Your task to perform on an android device: open chrome privacy settings Image 0: 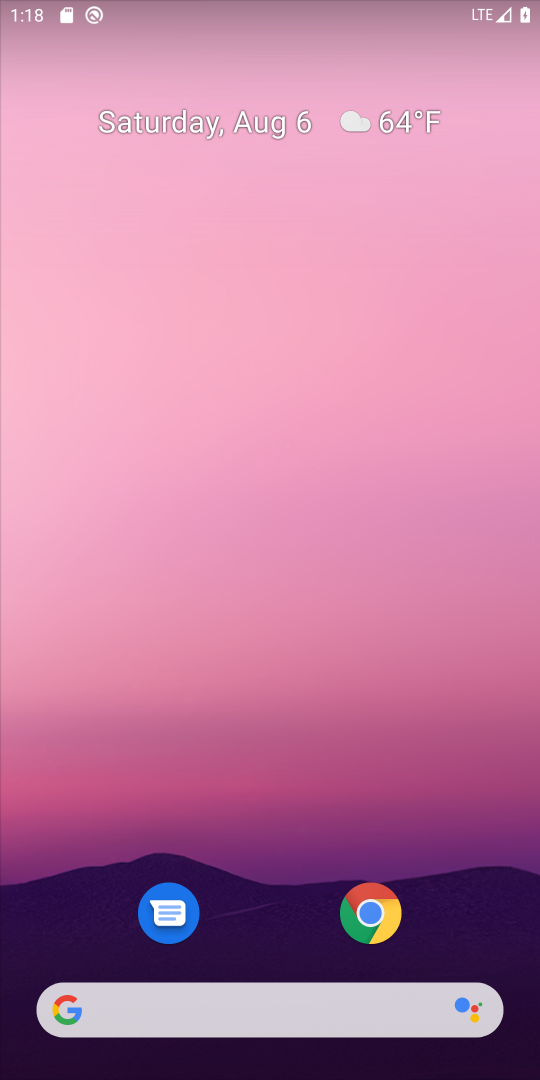
Step 0: press home button
Your task to perform on an android device: open chrome privacy settings Image 1: 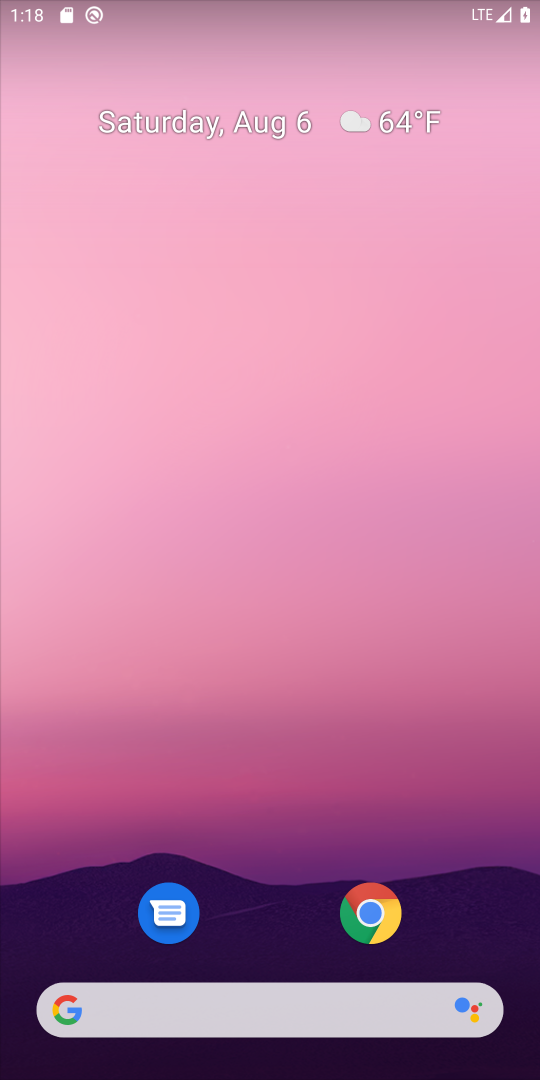
Step 1: drag from (437, 939) to (453, 246)
Your task to perform on an android device: open chrome privacy settings Image 2: 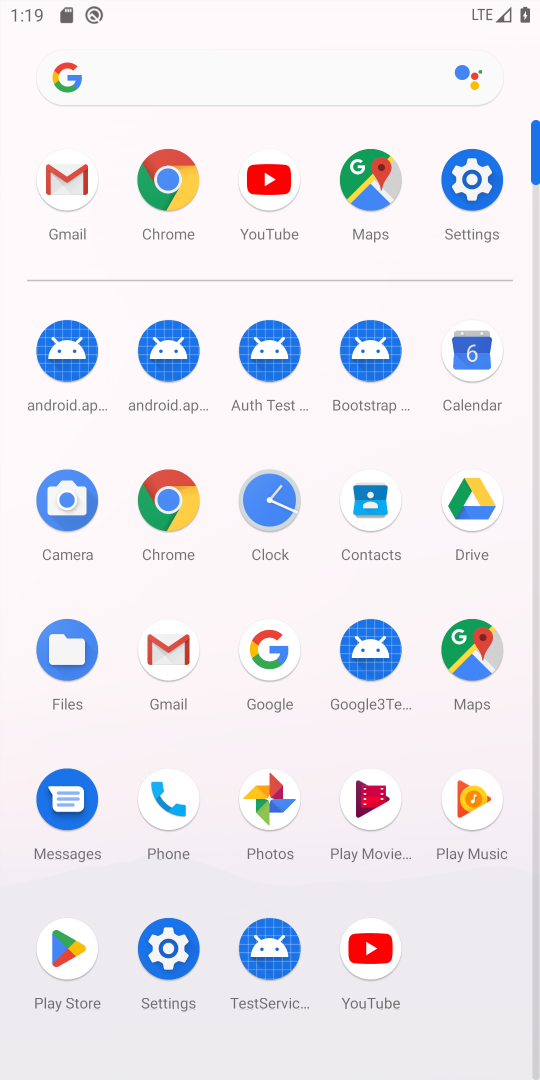
Step 2: click (156, 496)
Your task to perform on an android device: open chrome privacy settings Image 3: 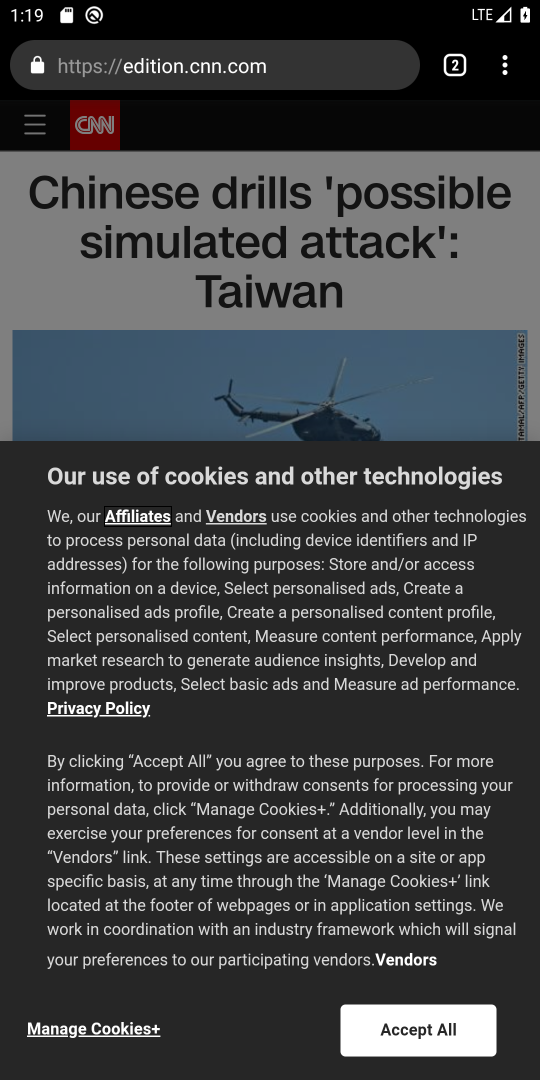
Step 3: click (503, 73)
Your task to perform on an android device: open chrome privacy settings Image 4: 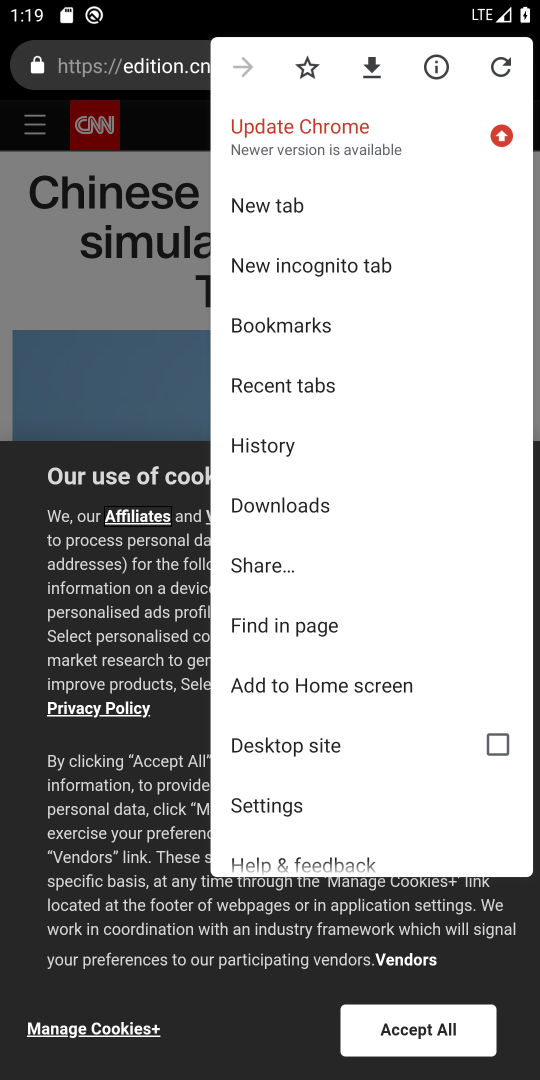
Step 4: click (261, 806)
Your task to perform on an android device: open chrome privacy settings Image 5: 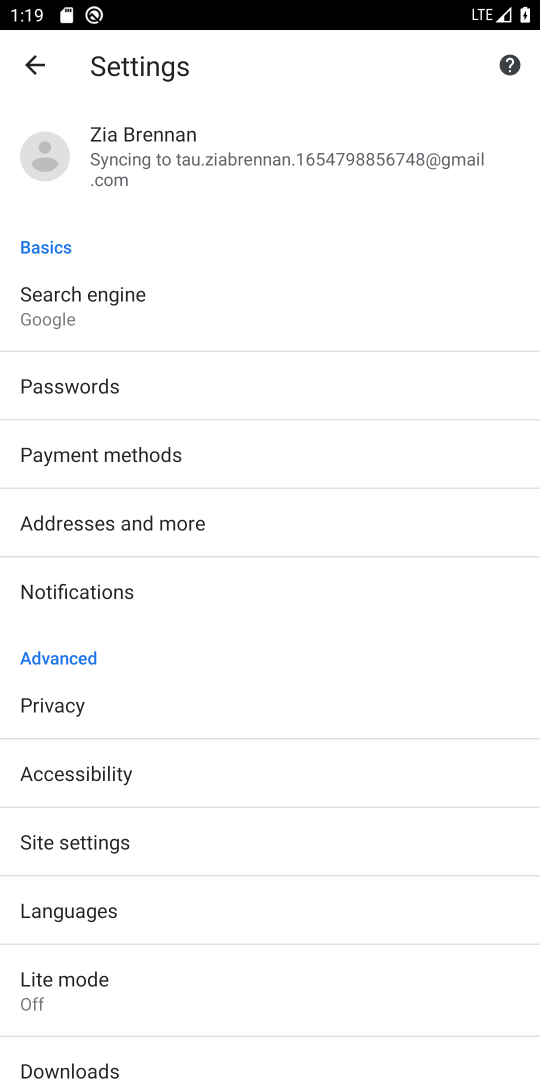
Step 5: click (244, 705)
Your task to perform on an android device: open chrome privacy settings Image 6: 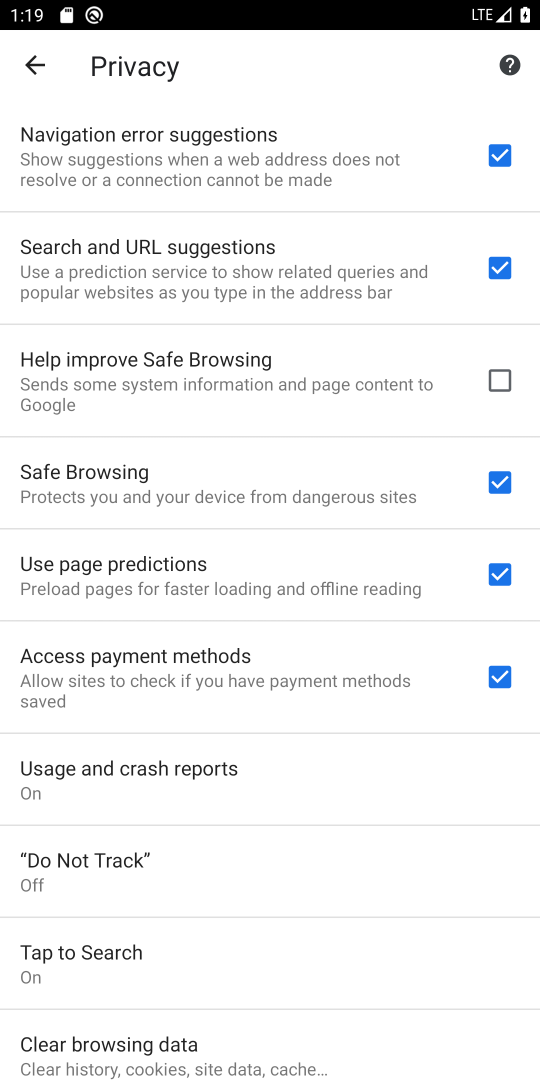
Step 6: task complete